Your task to perform on an android device: What's on my calendar tomorrow? Image 0: 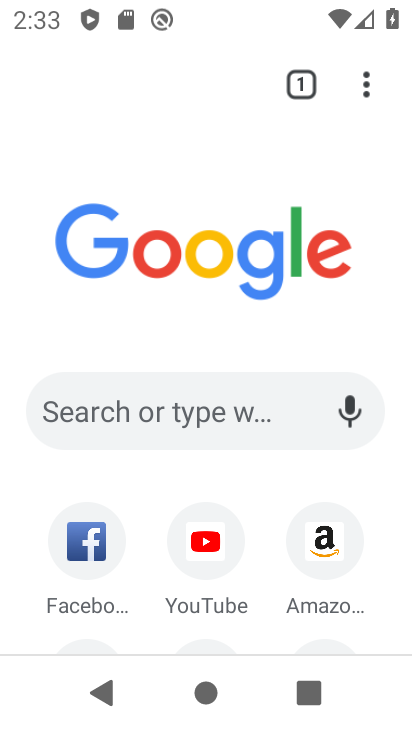
Step 0: press back button
Your task to perform on an android device: What's on my calendar tomorrow? Image 1: 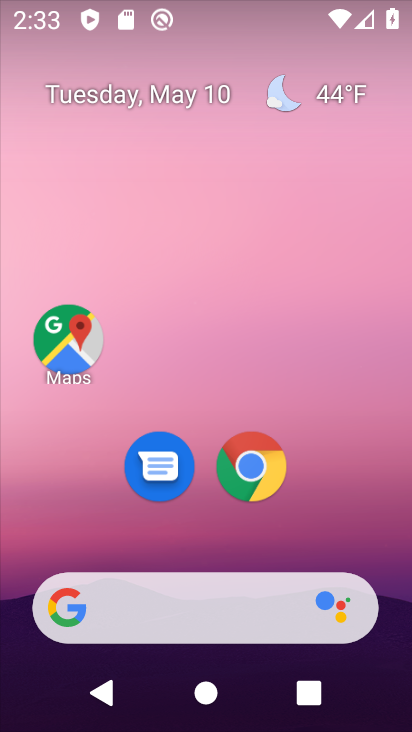
Step 1: drag from (324, 531) to (259, 80)
Your task to perform on an android device: What's on my calendar tomorrow? Image 2: 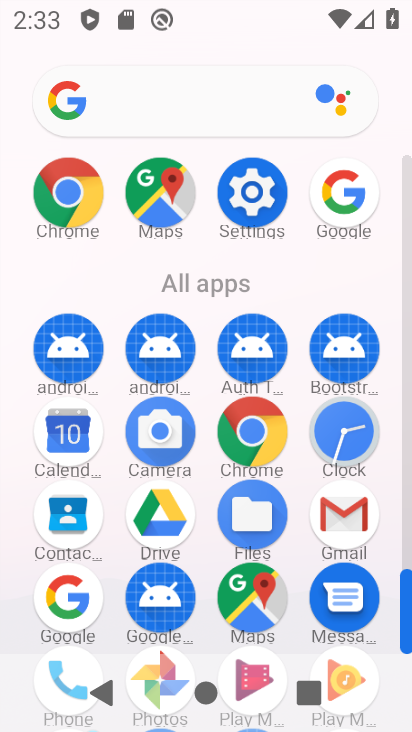
Step 2: click (64, 433)
Your task to perform on an android device: What's on my calendar tomorrow? Image 3: 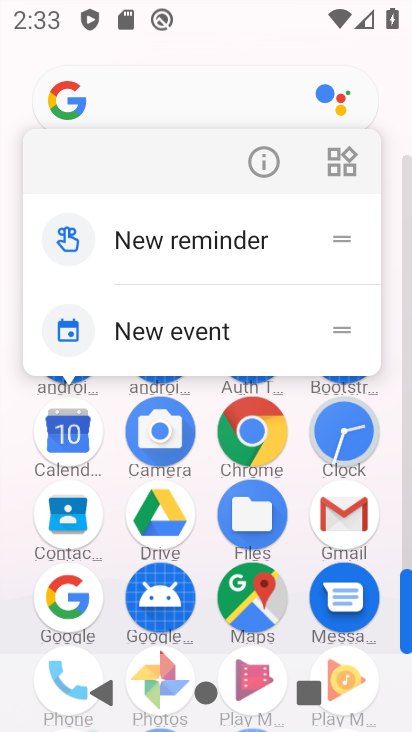
Step 3: click (73, 429)
Your task to perform on an android device: What's on my calendar tomorrow? Image 4: 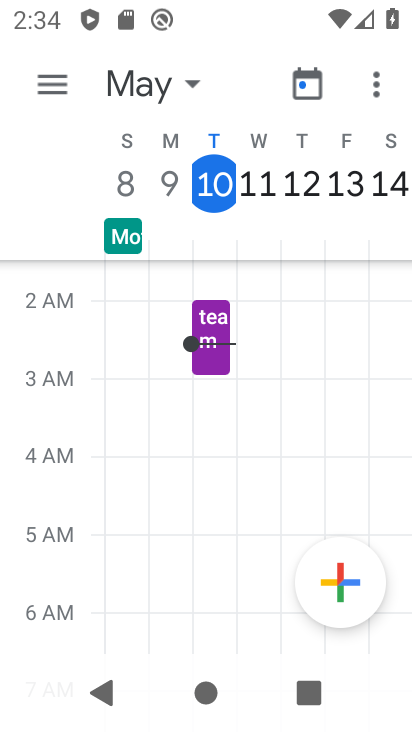
Step 4: click (194, 84)
Your task to perform on an android device: What's on my calendar tomorrow? Image 5: 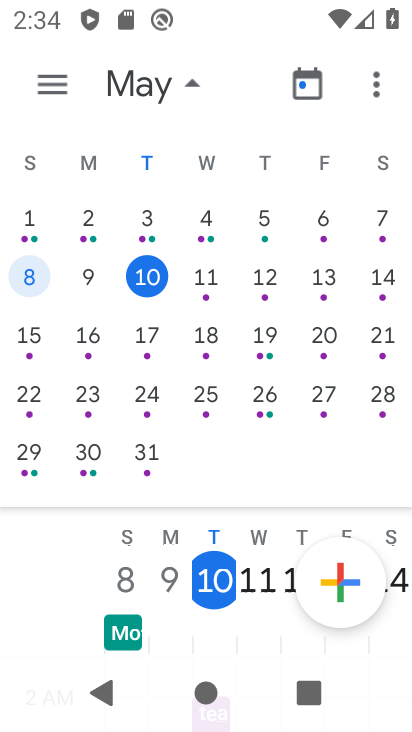
Step 5: click (203, 275)
Your task to perform on an android device: What's on my calendar tomorrow? Image 6: 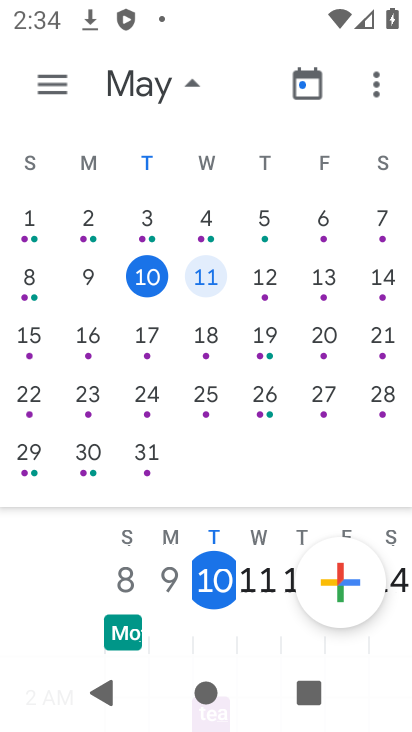
Step 6: click (40, 78)
Your task to perform on an android device: What's on my calendar tomorrow? Image 7: 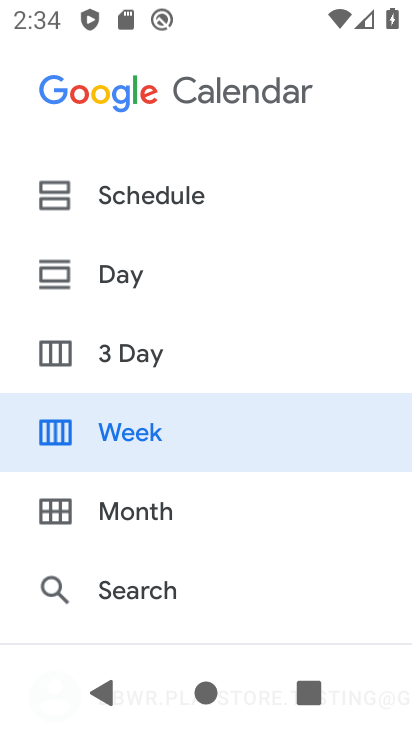
Step 7: click (136, 195)
Your task to perform on an android device: What's on my calendar tomorrow? Image 8: 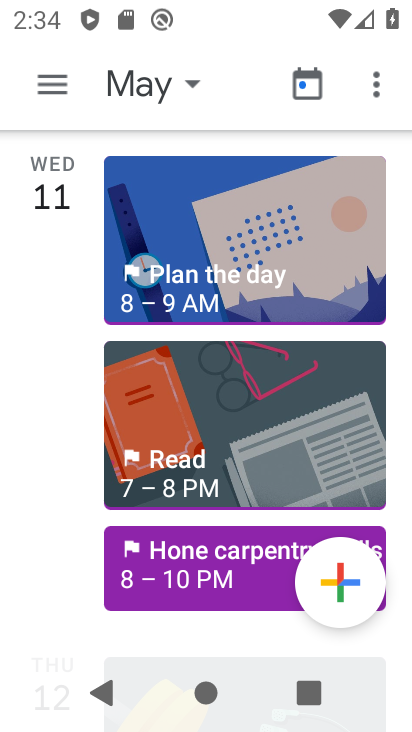
Step 8: click (188, 242)
Your task to perform on an android device: What's on my calendar tomorrow? Image 9: 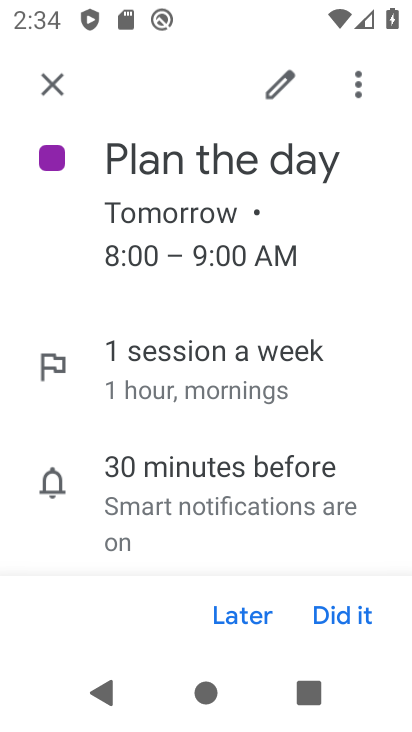
Step 9: task complete